Your task to perform on an android device: add a contact Image 0: 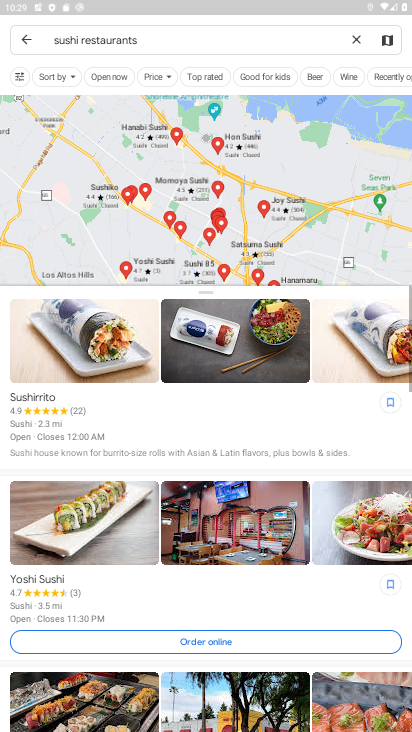
Step 0: press home button
Your task to perform on an android device: add a contact Image 1: 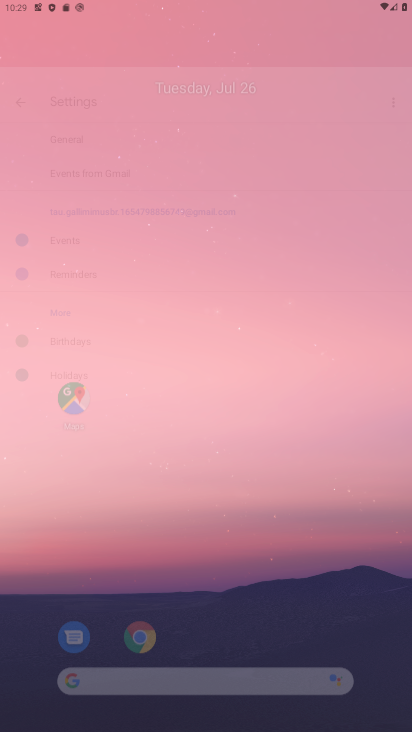
Step 1: drag from (292, 685) to (299, 226)
Your task to perform on an android device: add a contact Image 2: 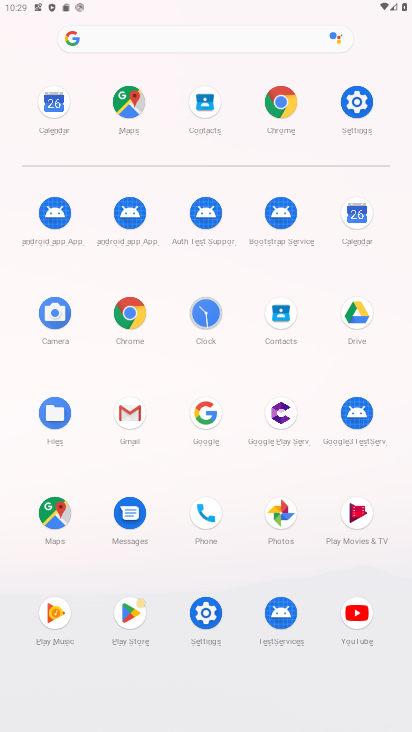
Step 2: click (287, 327)
Your task to perform on an android device: add a contact Image 3: 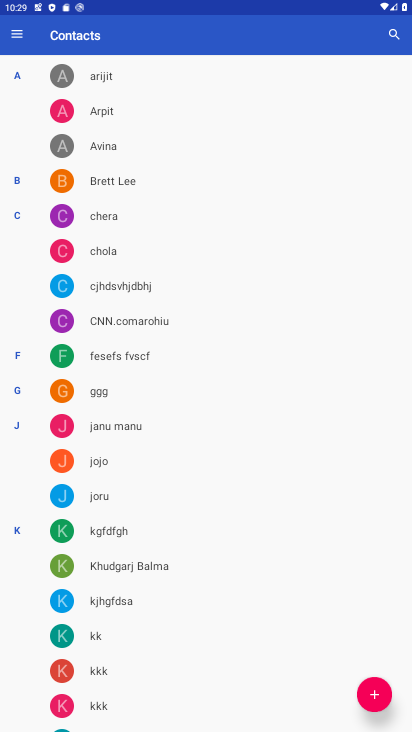
Step 3: click (375, 692)
Your task to perform on an android device: add a contact Image 4: 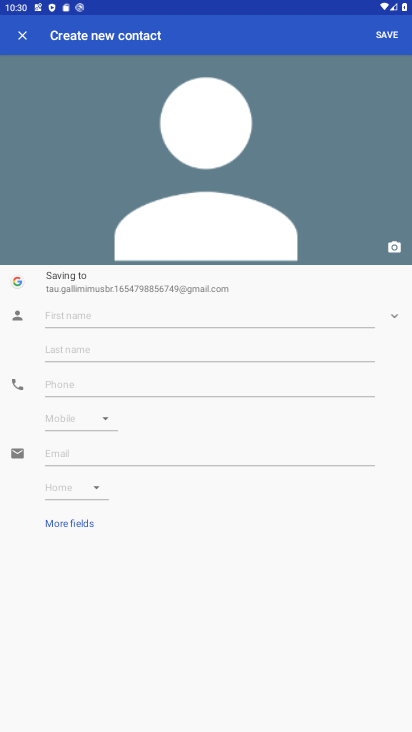
Step 4: click (88, 317)
Your task to perform on an android device: add a contact Image 5: 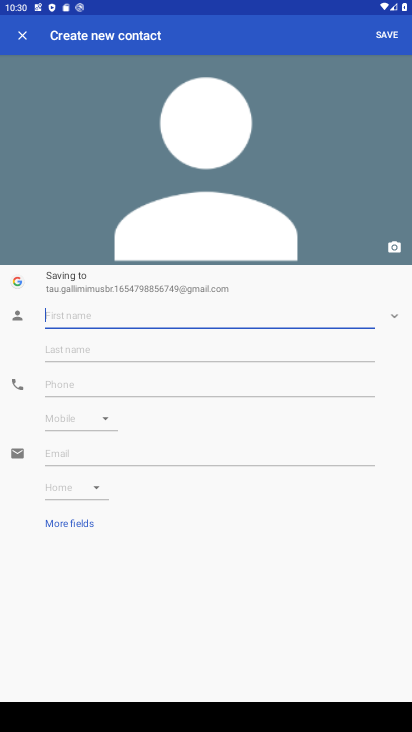
Step 5: type "ffddssa"
Your task to perform on an android device: add a contact Image 6: 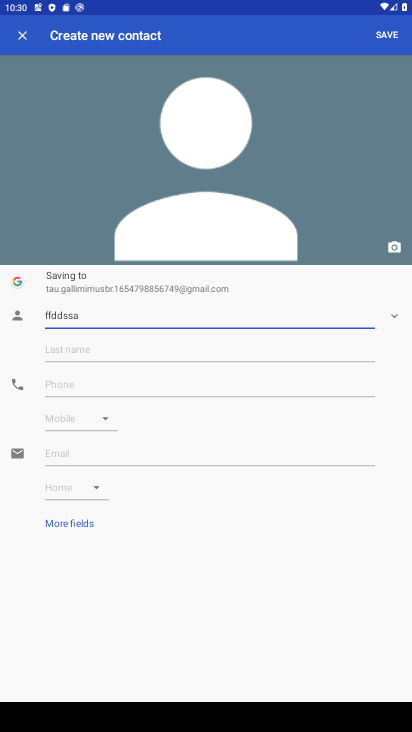
Step 6: click (77, 374)
Your task to perform on an android device: add a contact Image 7: 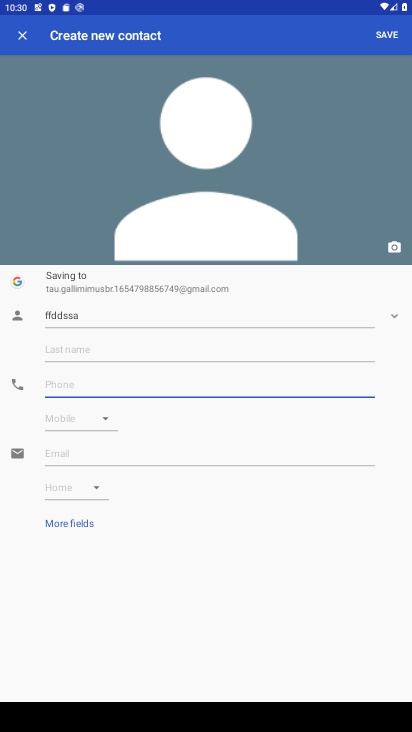
Step 7: type "5640"
Your task to perform on an android device: add a contact Image 8: 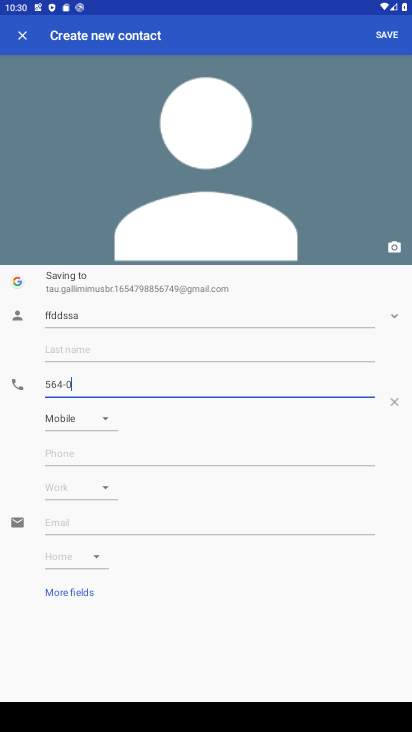
Step 8: click (376, 38)
Your task to perform on an android device: add a contact Image 9: 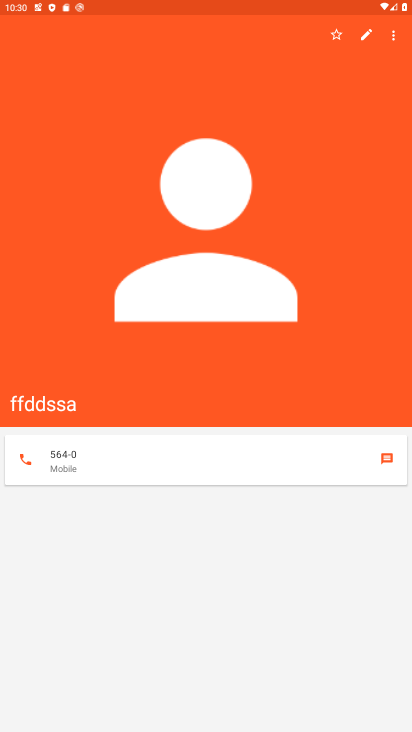
Step 9: task complete